Your task to perform on an android device: change the clock display to digital Image 0: 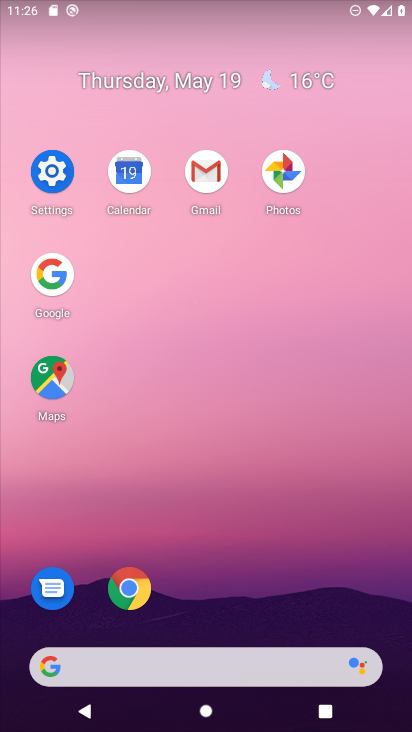
Step 0: drag from (267, 559) to (250, 95)
Your task to perform on an android device: change the clock display to digital Image 1: 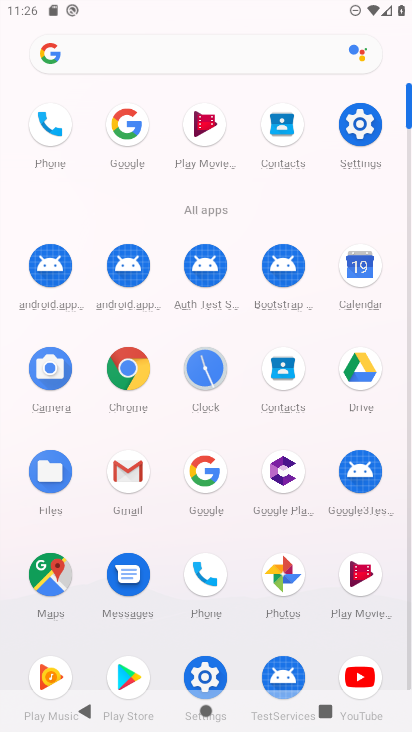
Step 1: click (192, 394)
Your task to perform on an android device: change the clock display to digital Image 2: 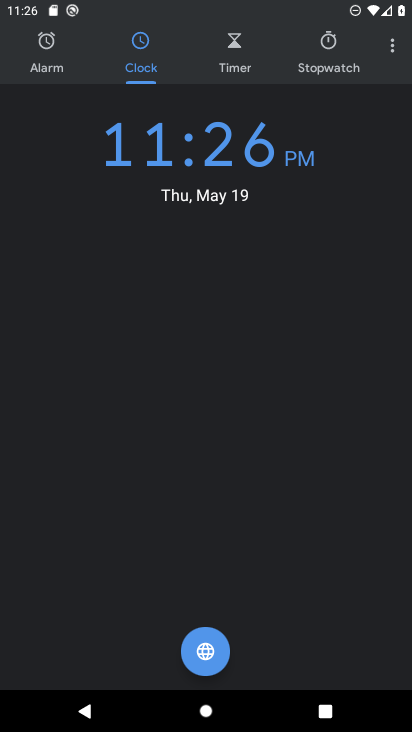
Step 2: click (390, 50)
Your task to perform on an android device: change the clock display to digital Image 3: 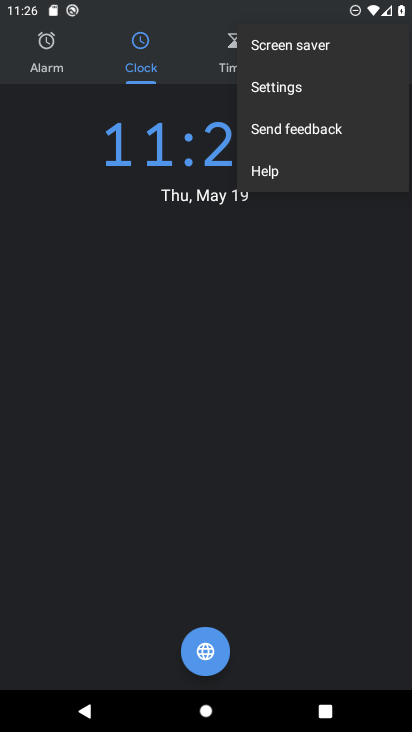
Step 3: click (300, 79)
Your task to perform on an android device: change the clock display to digital Image 4: 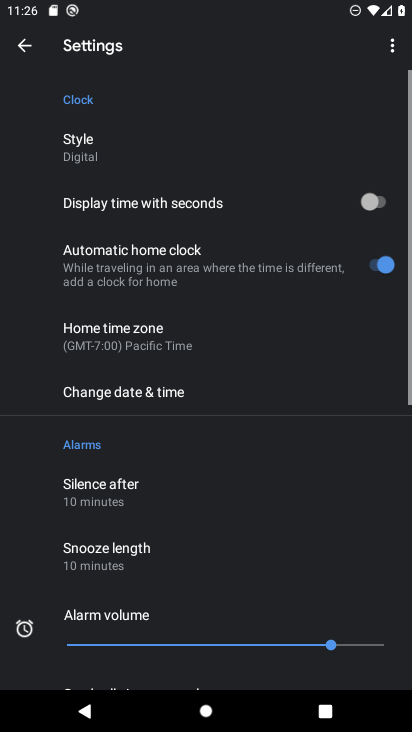
Step 4: click (155, 149)
Your task to perform on an android device: change the clock display to digital Image 5: 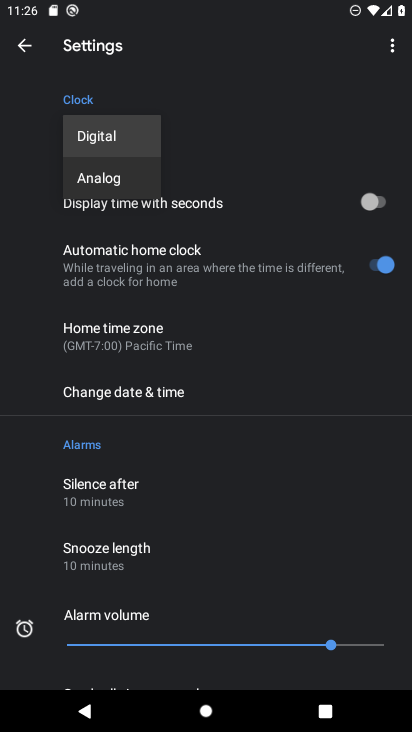
Step 5: task complete